Your task to perform on an android device: Open Maps and search for coffee Image 0: 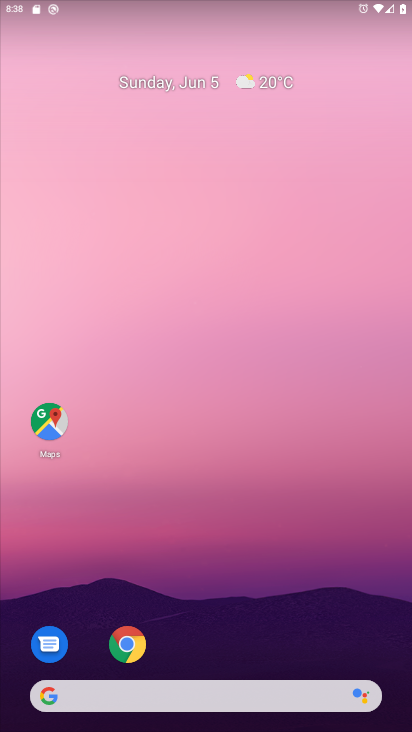
Step 0: drag from (279, 609) to (259, 213)
Your task to perform on an android device: Open Maps and search for coffee Image 1: 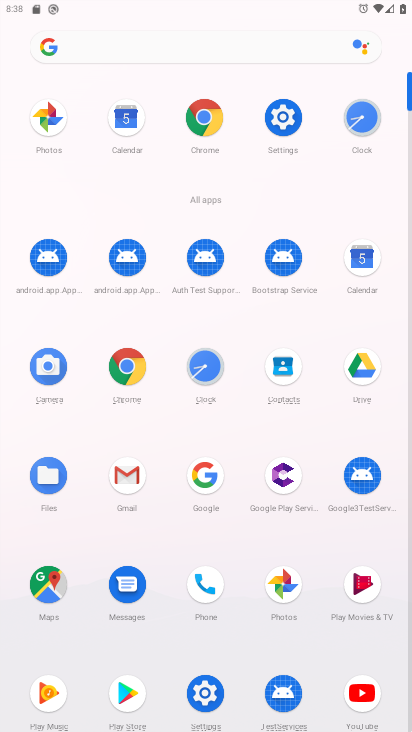
Step 1: click (46, 588)
Your task to perform on an android device: Open Maps and search for coffee Image 2: 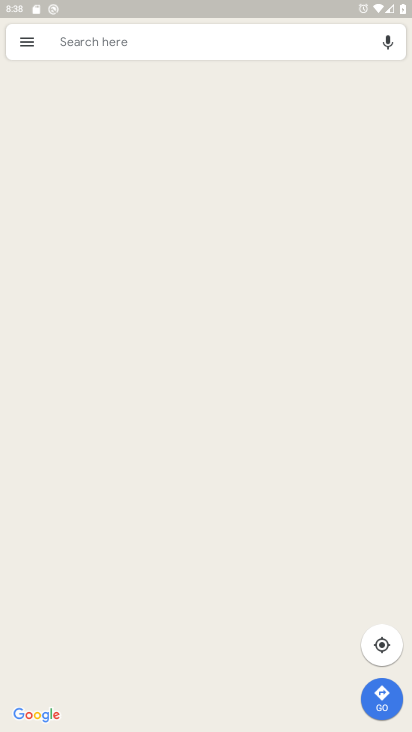
Step 2: click (186, 42)
Your task to perform on an android device: Open Maps and search for coffee Image 3: 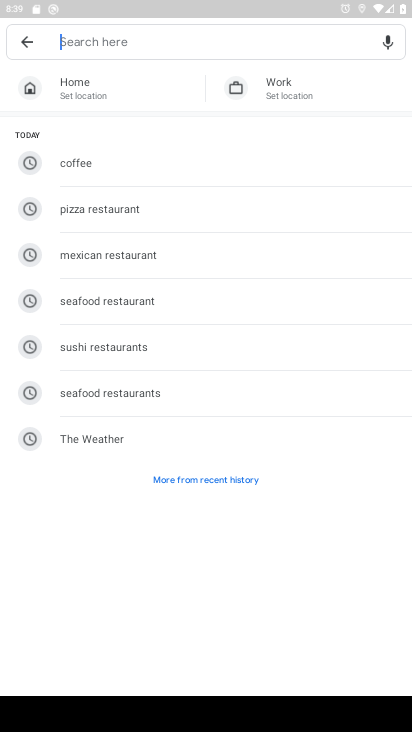
Step 3: type "coffee"
Your task to perform on an android device: Open Maps and search for coffee Image 4: 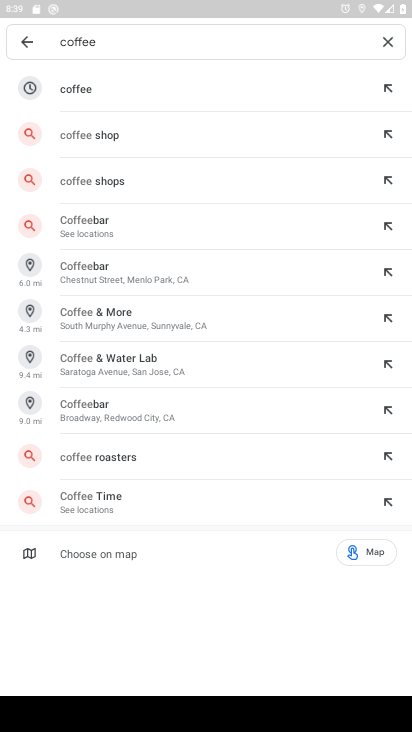
Step 4: click (121, 100)
Your task to perform on an android device: Open Maps and search for coffee Image 5: 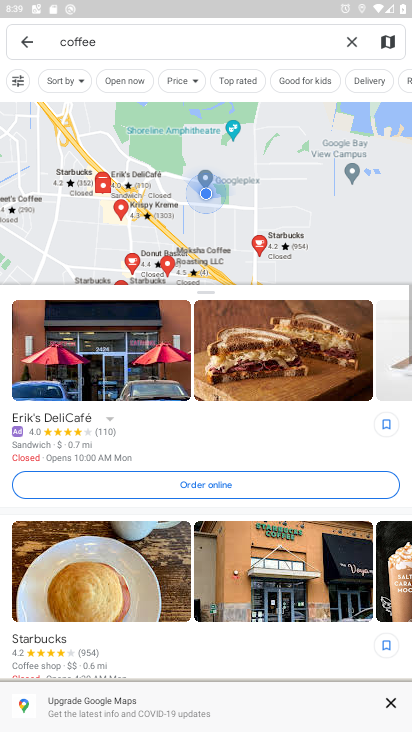
Step 5: task complete